Your task to perform on an android device: How much does a 2 bedroom apartment rent for in Atlanta? Image 0: 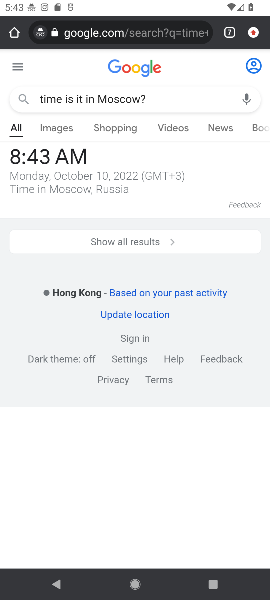
Step 0: click (109, 34)
Your task to perform on an android device: How much does a 2 bedroom apartment rent for in Atlanta? Image 1: 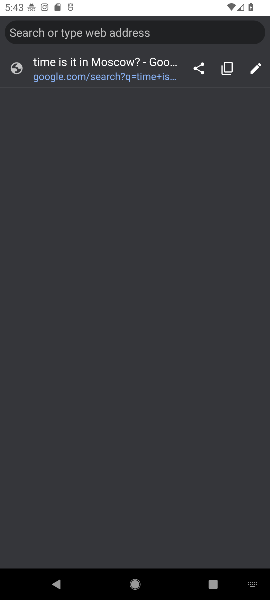
Step 1: type "How much does a 2 bedroom apartment rent for in Atlanta?"
Your task to perform on an android device: How much does a 2 bedroom apartment rent for in Atlanta? Image 2: 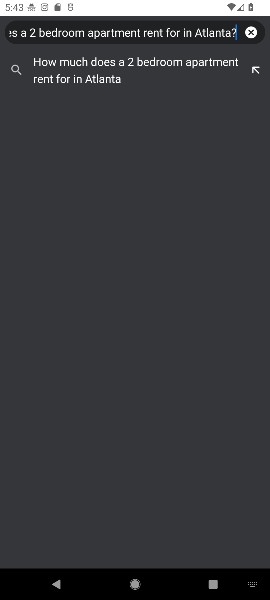
Step 2: type ""
Your task to perform on an android device: How much does a 2 bedroom apartment rent for in Atlanta? Image 3: 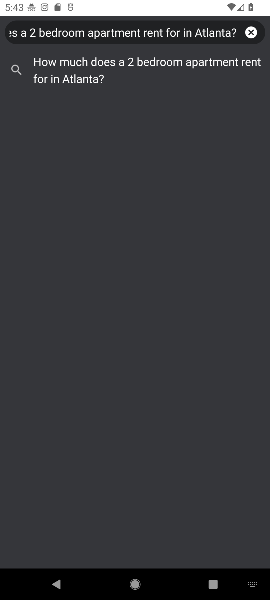
Step 3: click (108, 67)
Your task to perform on an android device: How much does a 2 bedroom apartment rent for in Atlanta? Image 4: 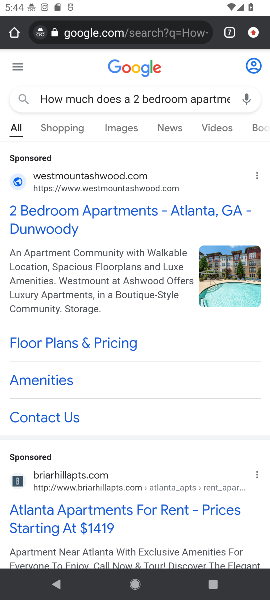
Step 4: drag from (146, 539) to (163, 122)
Your task to perform on an android device: How much does a 2 bedroom apartment rent for in Atlanta? Image 5: 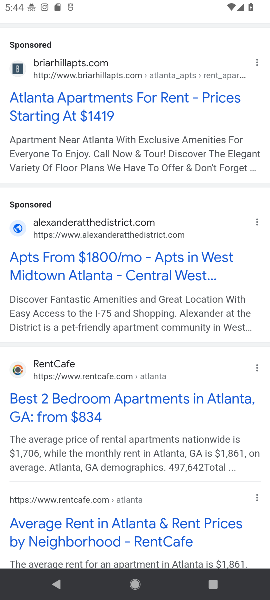
Step 5: drag from (72, 544) to (118, 238)
Your task to perform on an android device: How much does a 2 bedroom apartment rent for in Atlanta? Image 6: 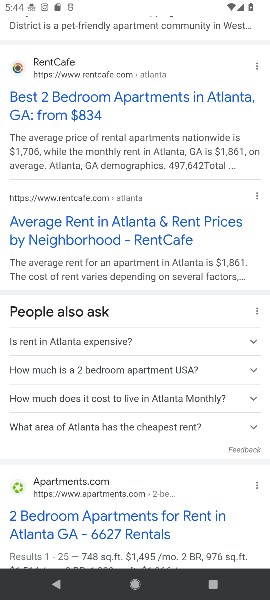
Step 6: click (61, 97)
Your task to perform on an android device: How much does a 2 bedroom apartment rent for in Atlanta? Image 7: 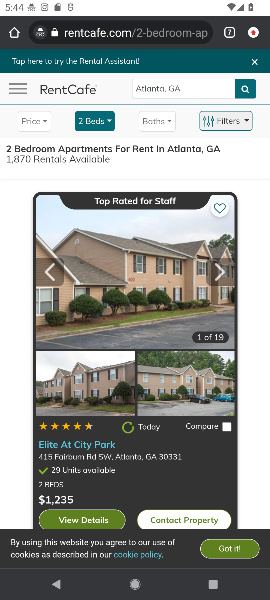
Step 7: task complete